Your task to perform on an android device: Open calendar and show me the fourth week of next month Image 0: 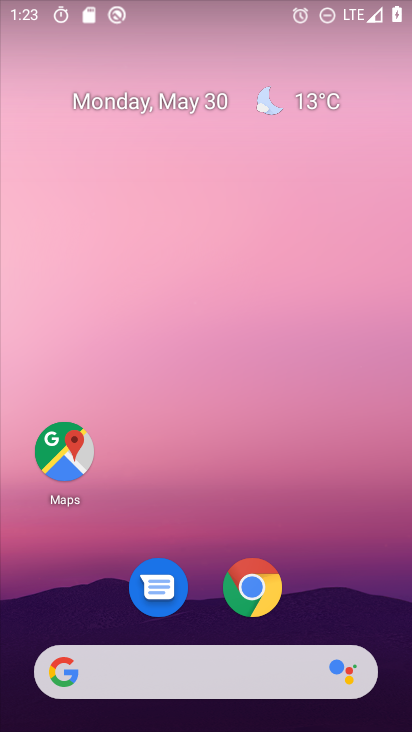
Step 0: drag from (315, 604) to (307, 52)
Your task to perform on an android device: Open calendar and show me the fourth week of next month Image 1: 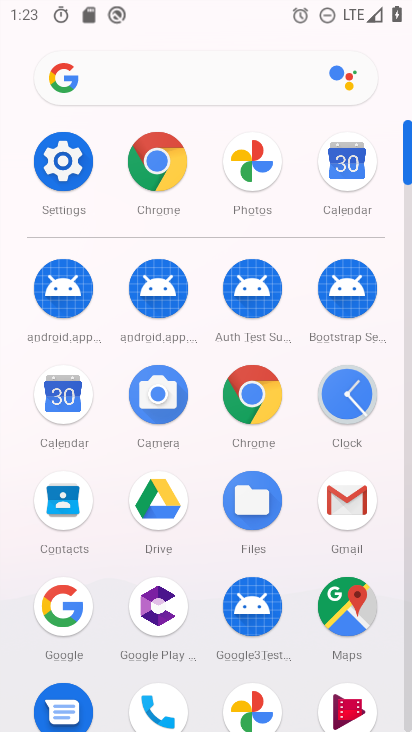
Step 1: click (62, 391)
Your task to perform on an android device: Open calendar and show me the fourth week of next month Image 2: 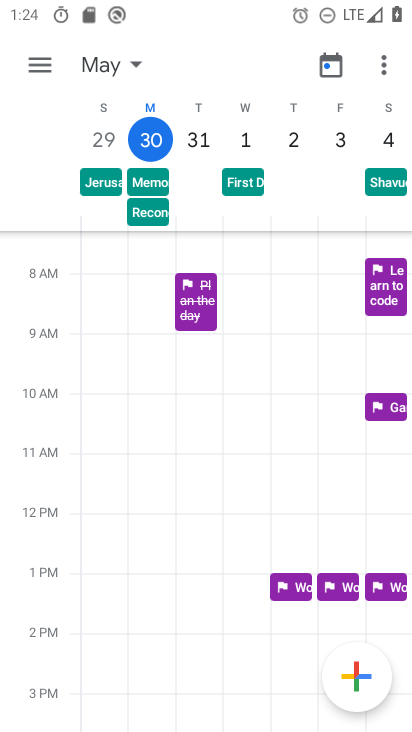
Step 2: click (59, 55)
Your task to perform on an android device: Open calendar and show me the fourth week of next month Image 3: 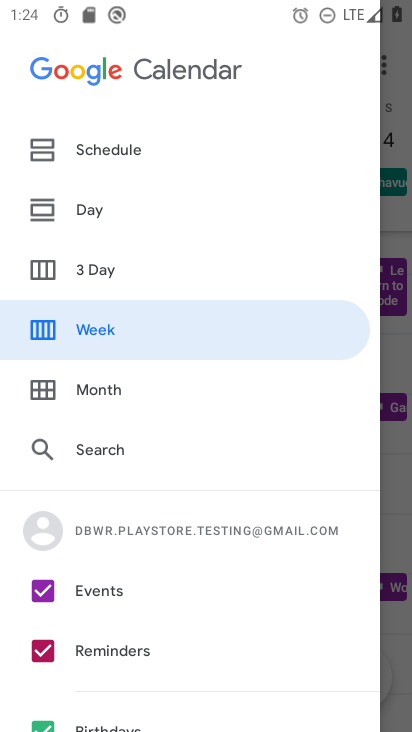
Step 3: click (392, 193)
Your task to perform on an android device: Open calendar and show me the fourth week of next month Image 4: 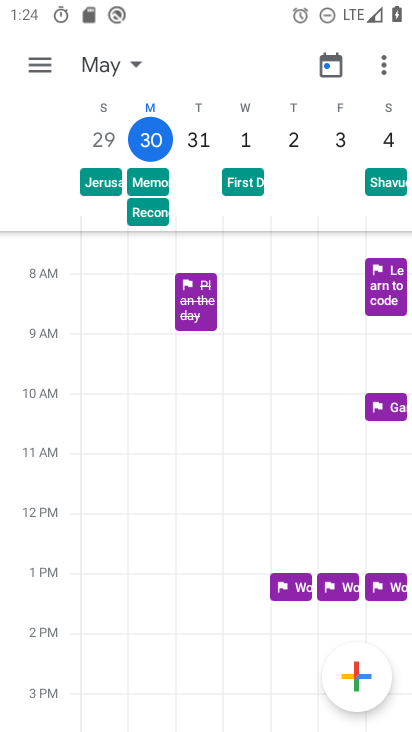
Step 4: click (123, 60)
Your task to perform on an android device: Open calendar and show me the fourth week of next month Image 5: 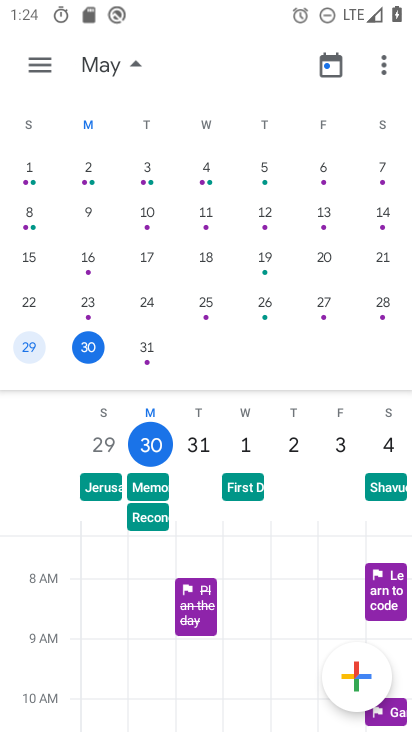
Step 5: click (132, 59)
Your task to perform on an android device: Open calendar and show me the fourth week of next month Image 6: 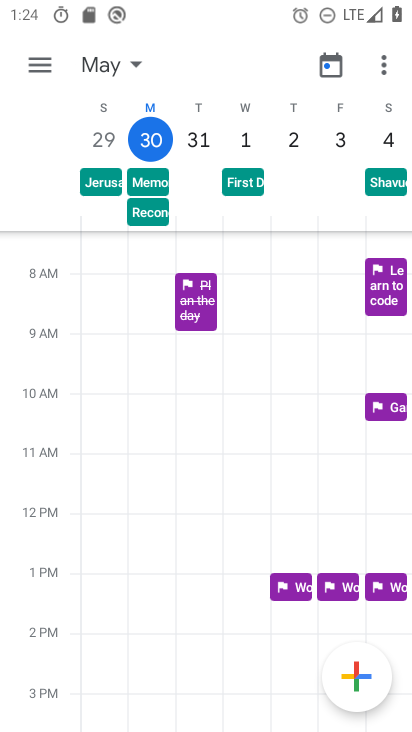
Step 6: click (136, 60)
Your task to perform on an android device: Open calendar and show me the fourth week of next month Image 7: 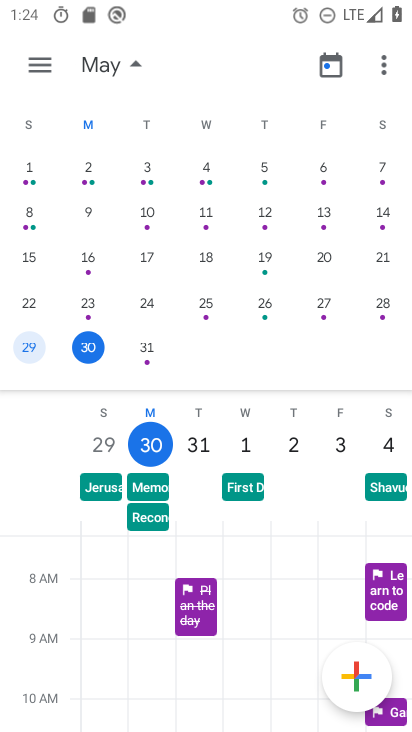
Step 7: drag from (381, 237) to (65, 250)
Your task to perform on an android device: Open calendar and show me the fourth week of next month Image 8: 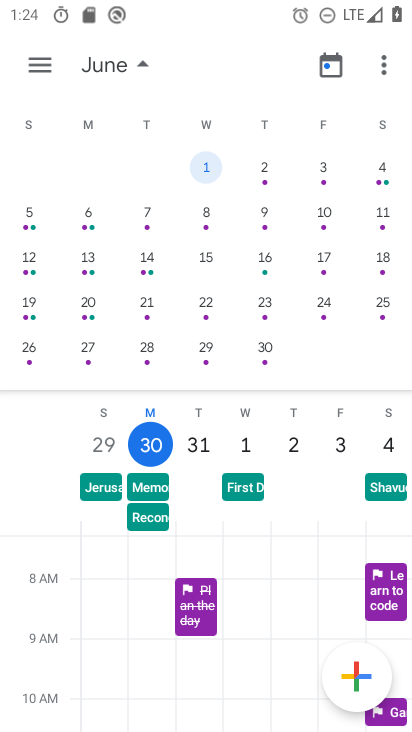
Step 8: click (30, 344)
Your task to perform on an android device: Open calendar and show me the fourth week of next month Image 9: 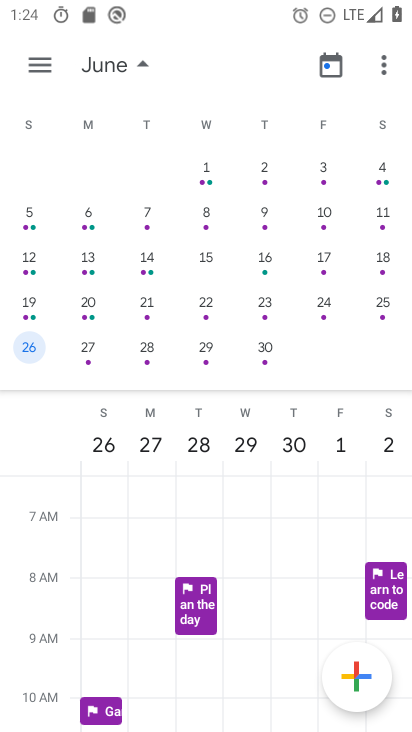
Step 9: task complete